Your task to perform on an android device: open device folders in google photos Image 0: 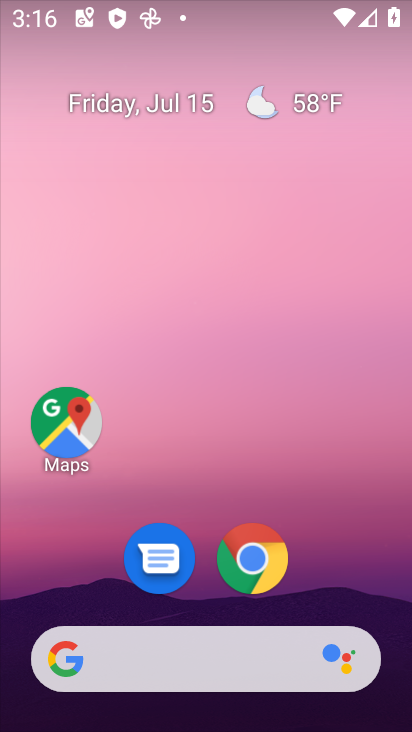
Step 0: drag from (351, 591) to (352, 196)
Your task to perform on an android device: open device folders in google photos Image 1: 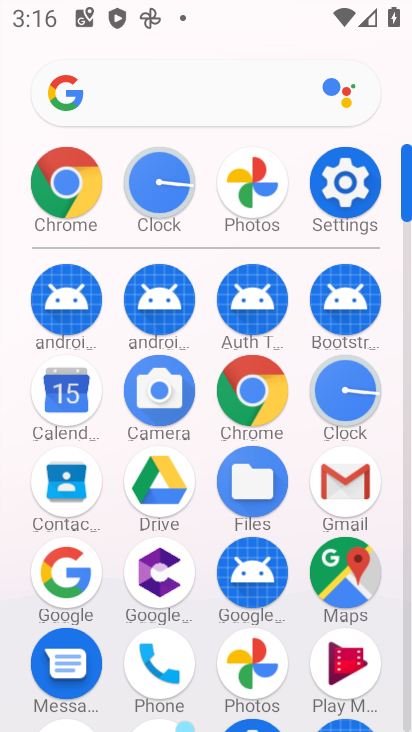
Step 1: click (247, 678)
Your task to perform on an android device: open device folders in google photos Image 2: 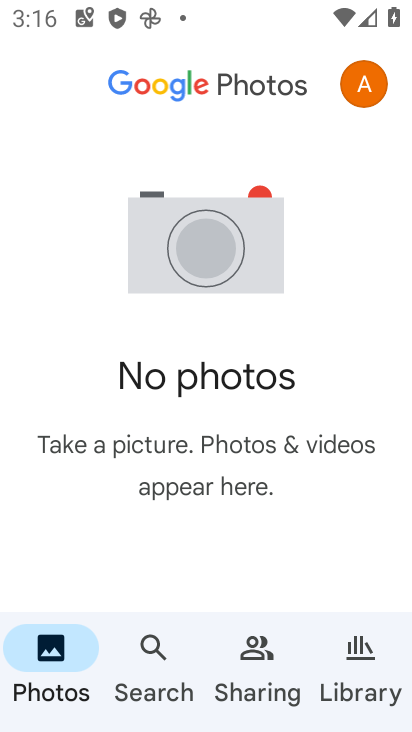
Step 2: click (358, 81)
Your task to perform on an android device: open device folders in google photos Image 3: 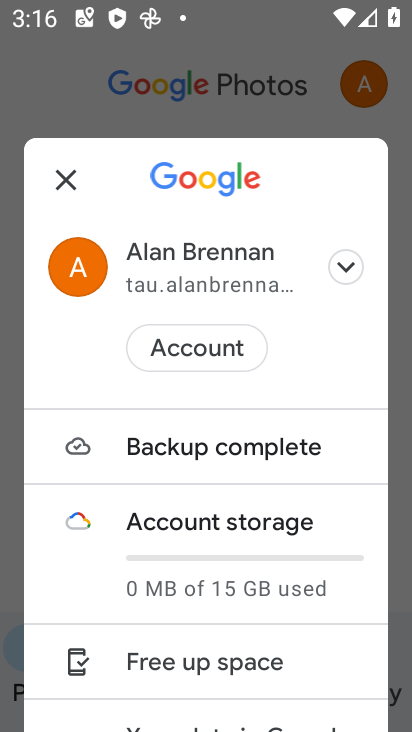
Step 3: task complete